Your task to perform on an android device: Go to battery settings Image 0: 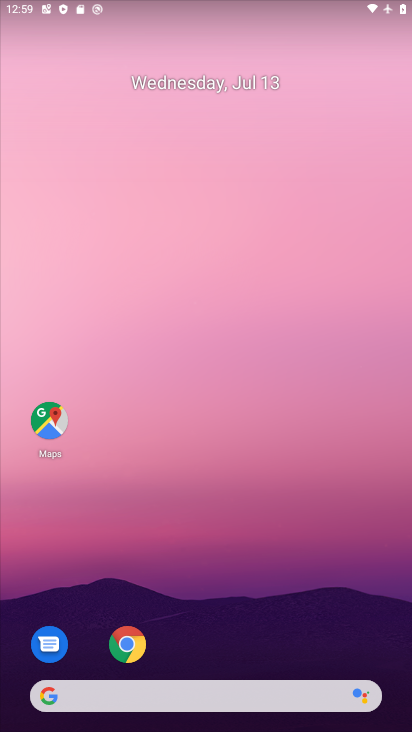
Step 0: drag from (267, 590) to (290, 102)
Your task to perform on an android device: Go to battery settings Image 1: 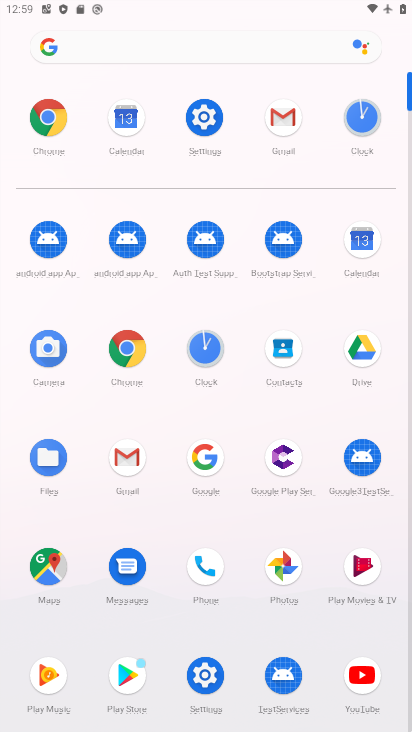
Step 1: click (215, 116)
Your task to perform on an android device: Go to battery settings Image 2: 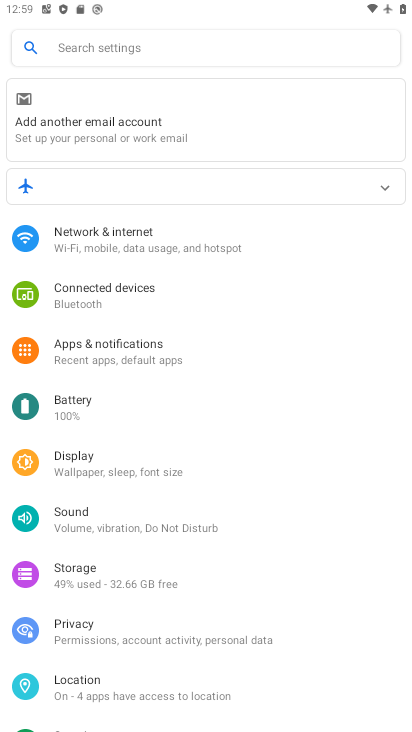
Step 2: drag from (240, 616) to (244, 205)
Your task to perform on an android device: Go to battery settings Image 3: 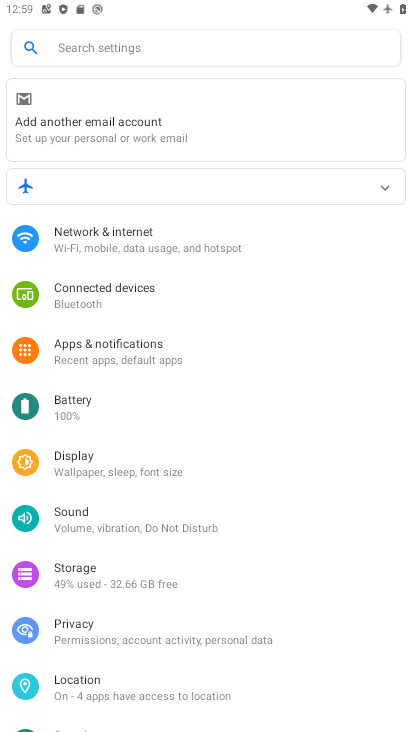
Step 3: drag from (294, 626) to (298, 235)
Your task to perform on an android device: Go to battery settings Image 4: 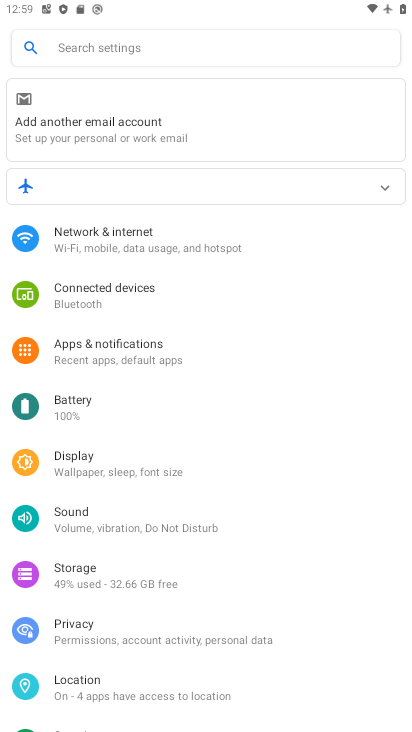
Step 4: drag from (200, 634) to (261, 259)
Your task to perform on an android device: Go to battery settings Image 5: 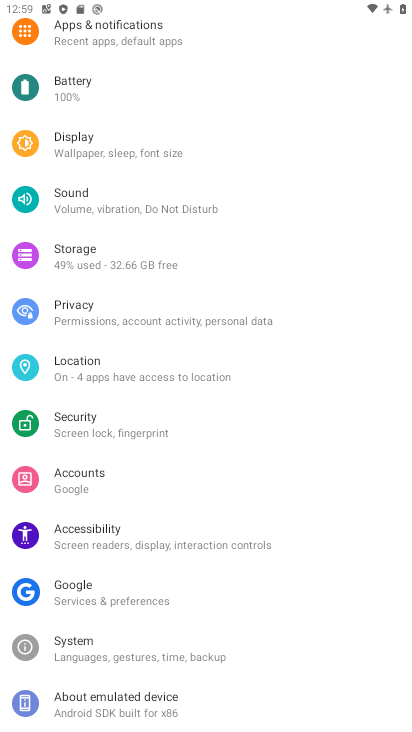
Step 5: click (84, 94)
Your task to perform on an android device: Go to battery settings Image 6: 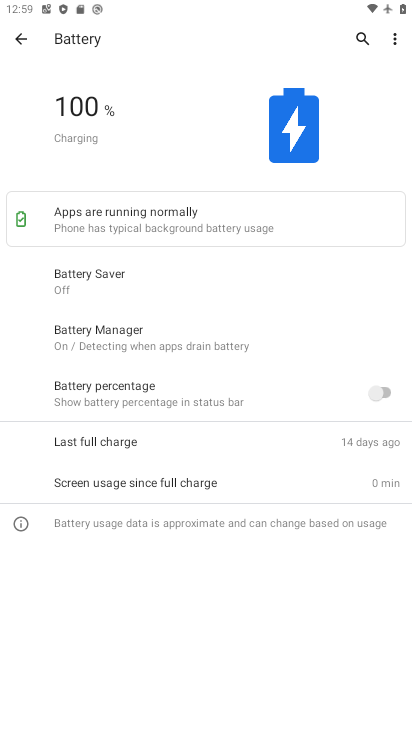
Step 6: task complete